Your task to perform on an android device: turn on location history Image 0: 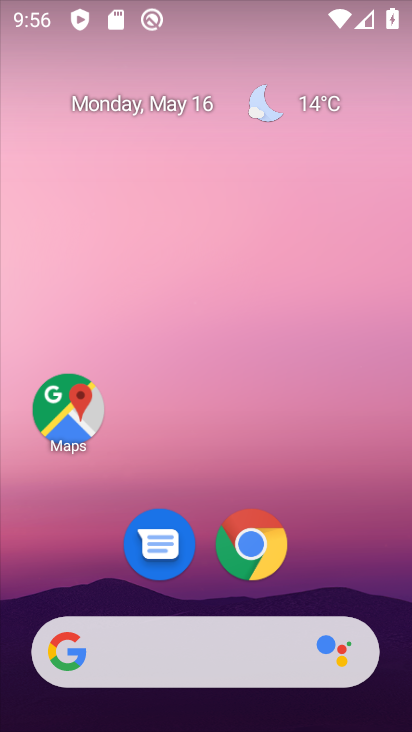
Step 0: drag from (295, 551) to (271, 87)
Your task to perform on an android device: turn on location history Image 1: 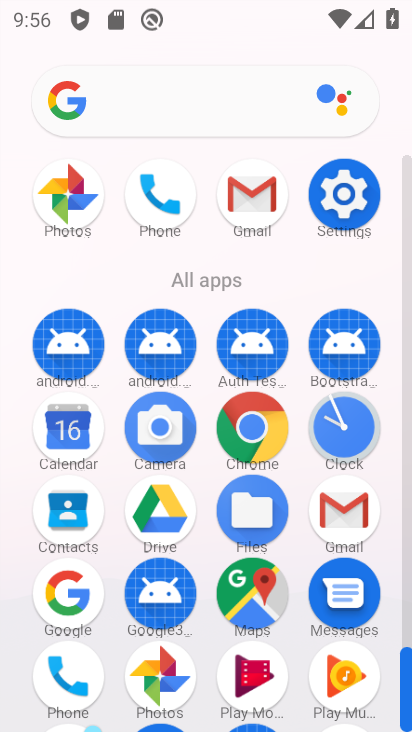
Step 1: click (325, 212)
Your task to perform on an android device: turn on location history Image 2: 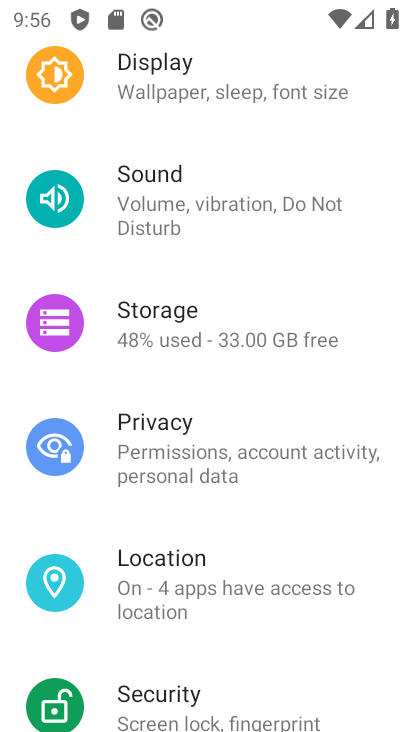
Step 2: click (234, 581)
Your task to perform on an android device: turn on location history Image 3: 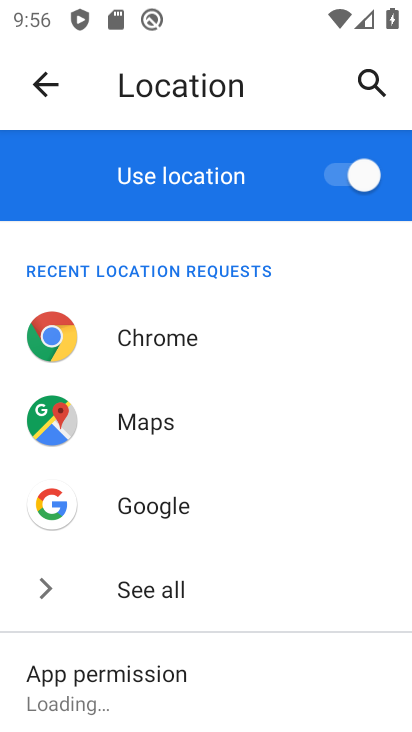
Step 3: drag from (127, 684) to (109, 204)
Your task to perform on an android device: turn on location history Image 4: 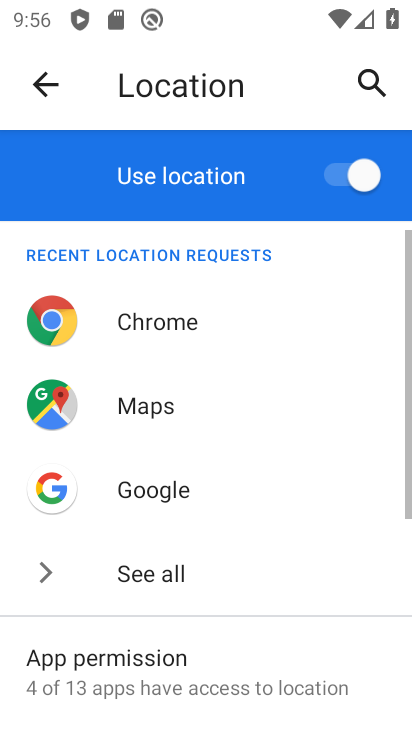
Step 4: drag from (144, 646) to (182, 278)
Your task to perform on an android device: turn on location history Image 5: 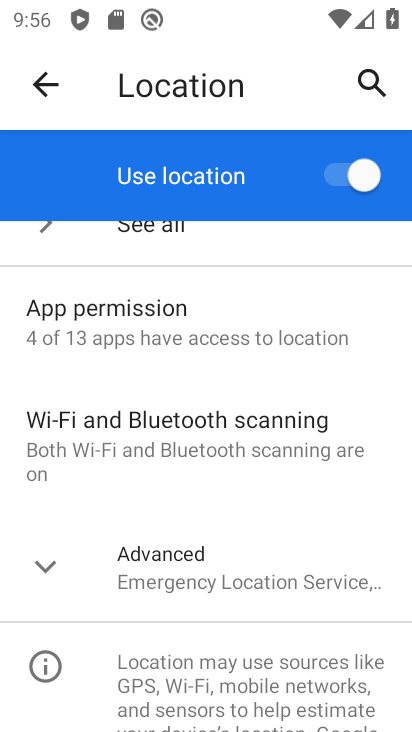
Step 5: click (39, 562)
Your task to perform on an android device: turn on location history Image 6: 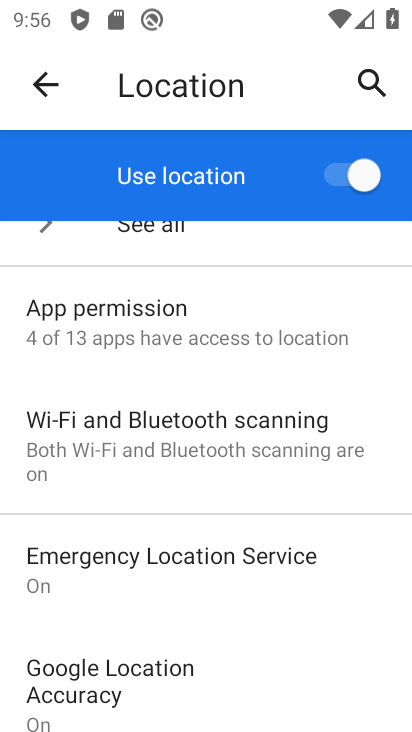
Step 6: task complete